Your task to perform on an android device: Open notification settings Image 0: 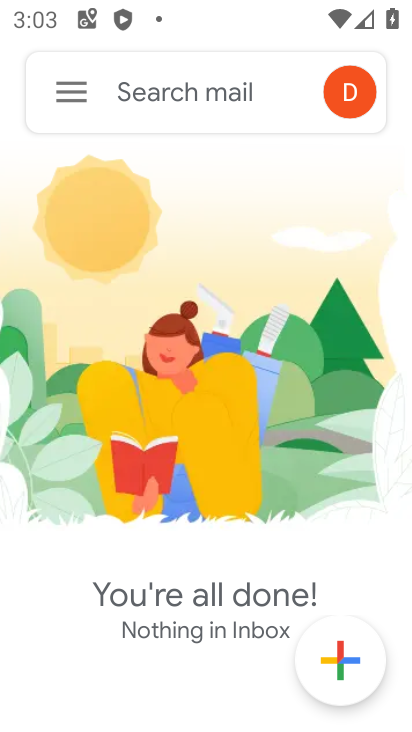
Step 0: press home button
Your task to perform on an android device: Open notification settings Image 1: 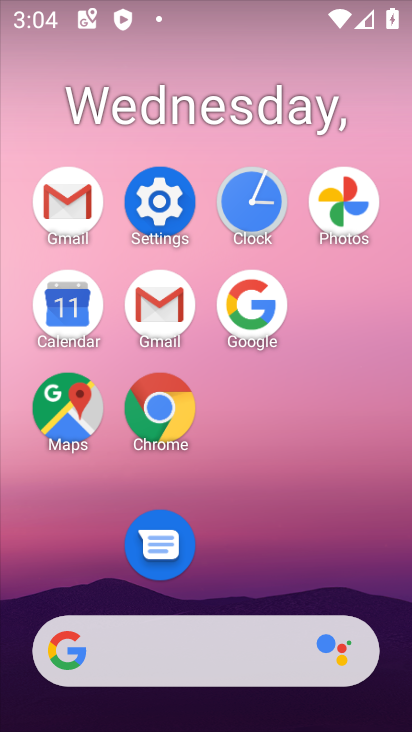
Step 1: click (157, 200)
Your task to perform on an android device: Open notification settings Image 2: 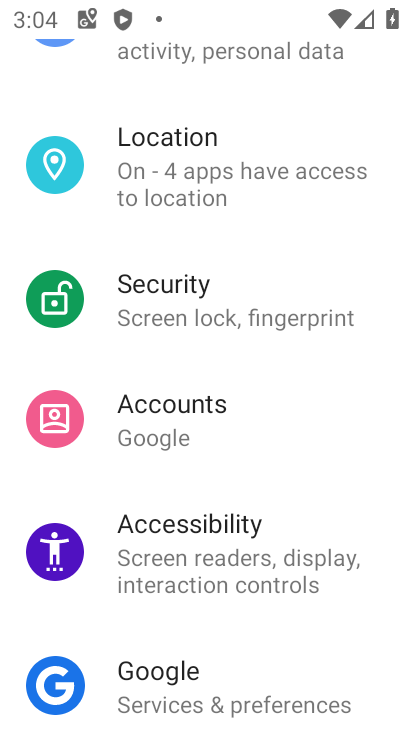
Step 2: drag from (301, 121) to (268, 624)
Your task to perform on an android device: Open notification settings Image 3: 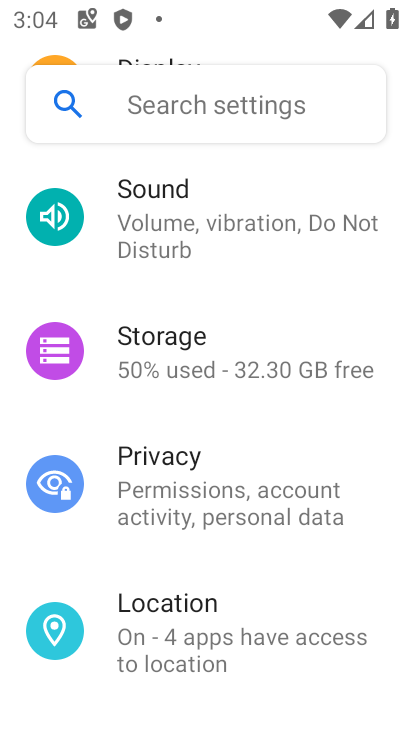
Step 3: drag from (281, 277) to (231, 671)
Your task to perform on an android device: Open notification settings Image 4: 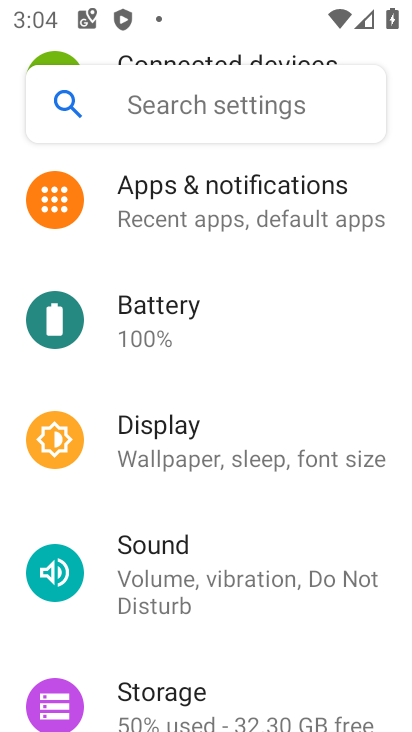
Step 4: click (288, 208)
Your task to perform on an android device: Open notification settings Image 5: 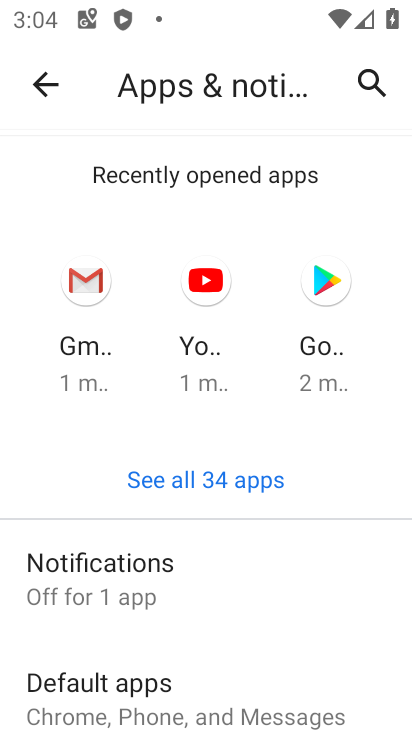
Step 5: task complete